Your task to perform on an android device: Go to display settings Image 0: 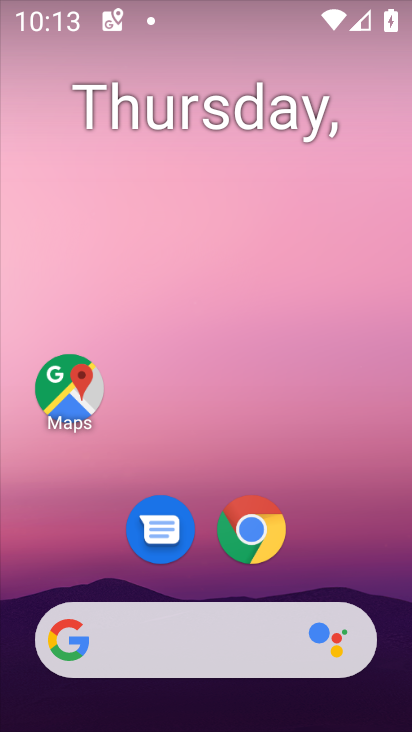
Step 0: drag from (262, 718) to (363, 1)
Your task to perform on an android device: Go to display settings Image 1: 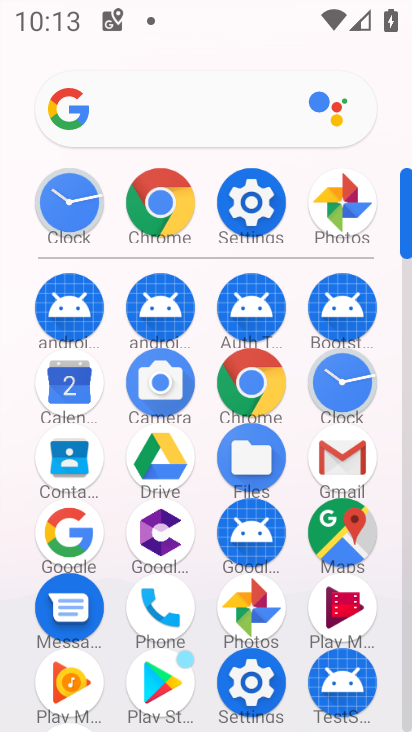
Step 1: click (258, 203)
Your task to perform on an android device: Go to display settings Image 2: 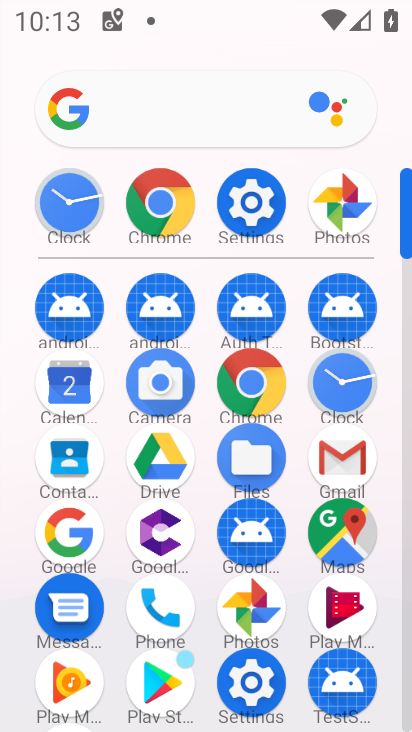
Step 2: click (258, 203)
Your task to perform on an android device: Go to display settings Image 3: 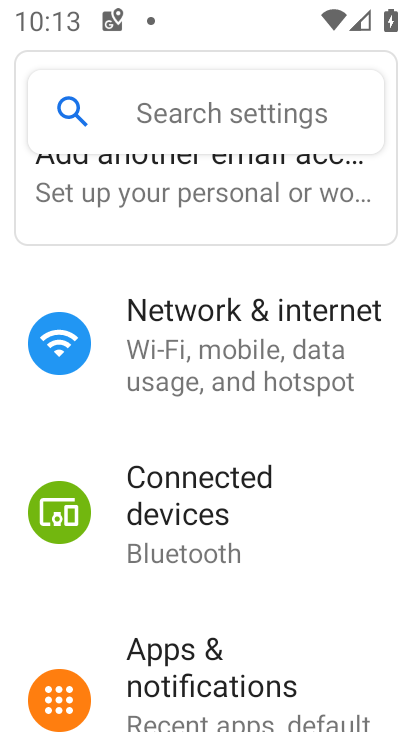
Step 3: drag from (383, 678) to (291, 66)
Your task to perform on an android device: Go to display settings Image 4: 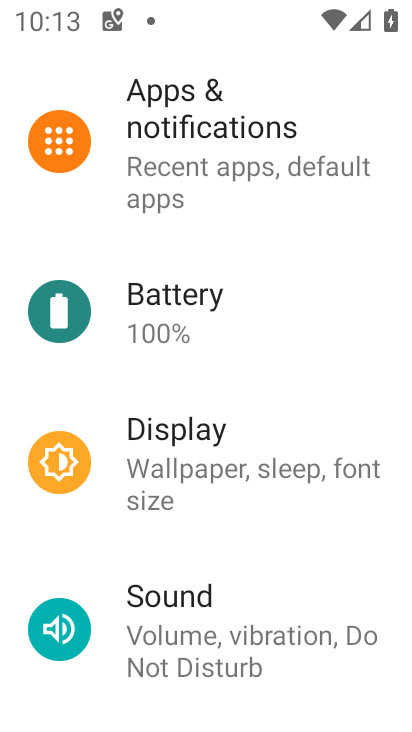
Step 4: click (268, 459)
Your task to perform on an android device: Go to display settings Image 5: 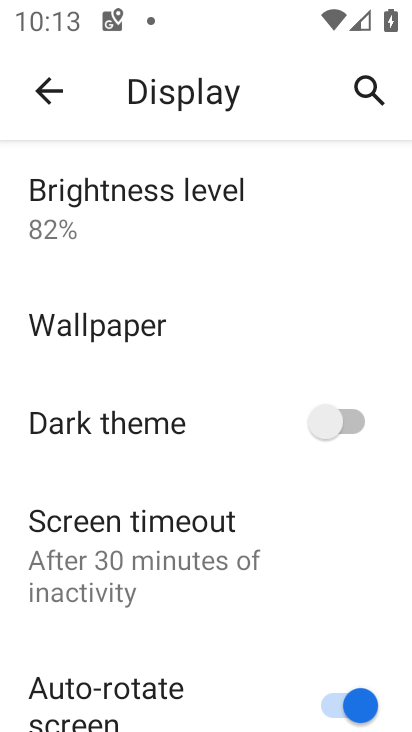
Step 5: task complete